Your task to perform on an android device: Go to Google maps Image 0: 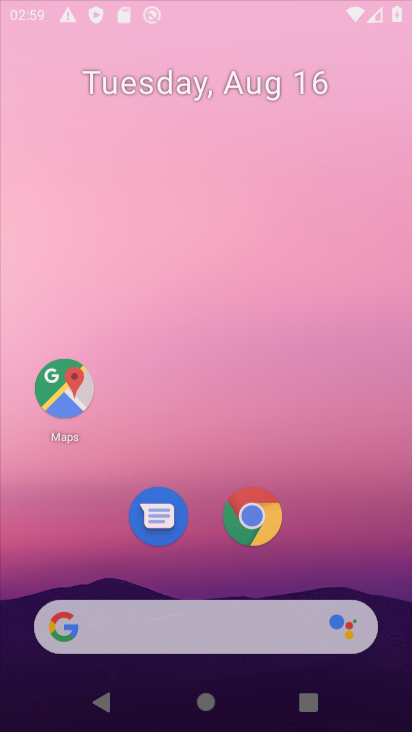
Step 0: press home button
Your task to perform on an android device: Go to Google maps Image 1: 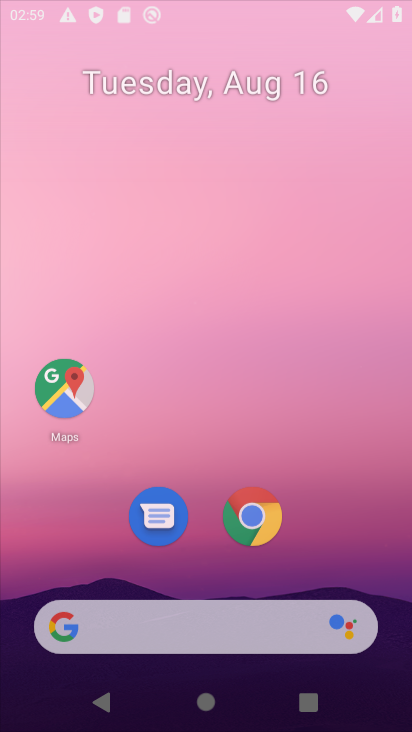
Step 1: click (225, 37)
Your task to perform on an android device: Go to Google maps Image 2: 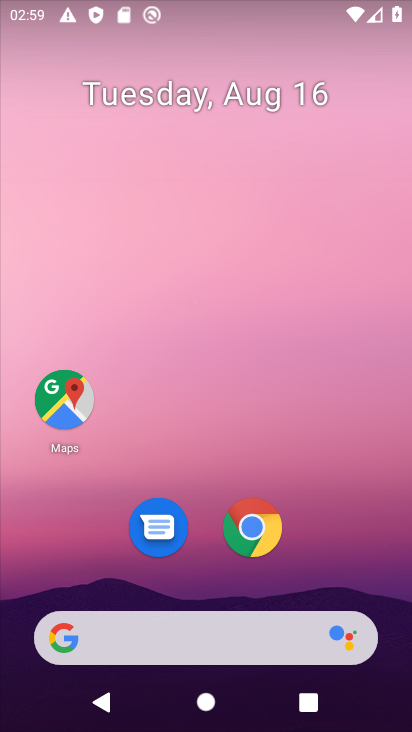
Step 2: click (62, 398)
Your task to perform on an android device: Go to Google maps Image 3: 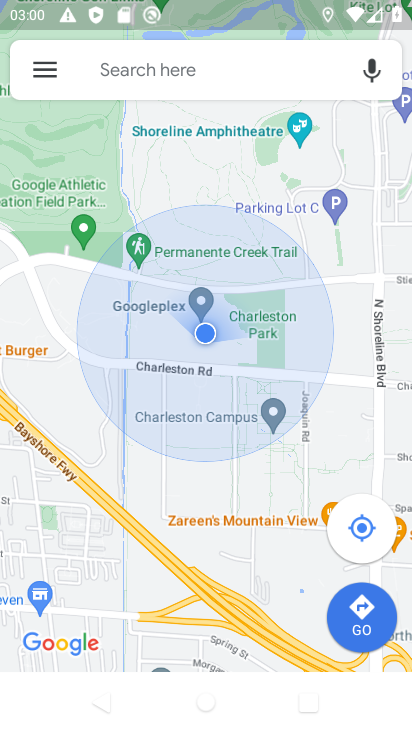
Step 3: task complete